Your task to perform on an android device: Go to eBay Image 0: 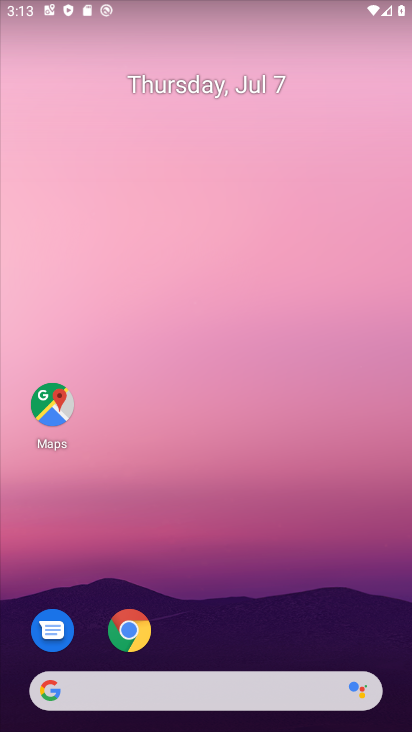
Step 0: click (142, 629)
Your task to perform on an android device: Go to eBay Image 1: 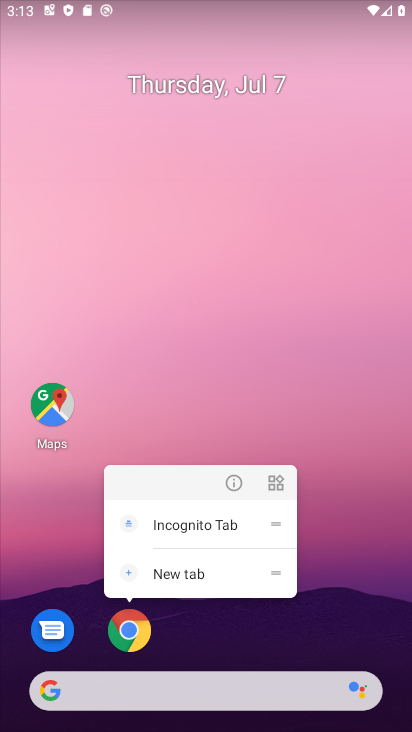
Step 1: click (142, 629)
Your task to perform on an android device: Go to eBay Image 2: 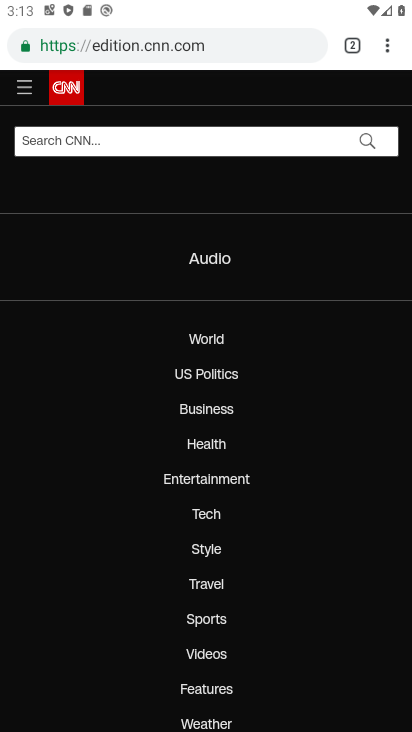
Step 2: click (274, 48)
Your task to perform on an android device: Go to eBay Image 3: 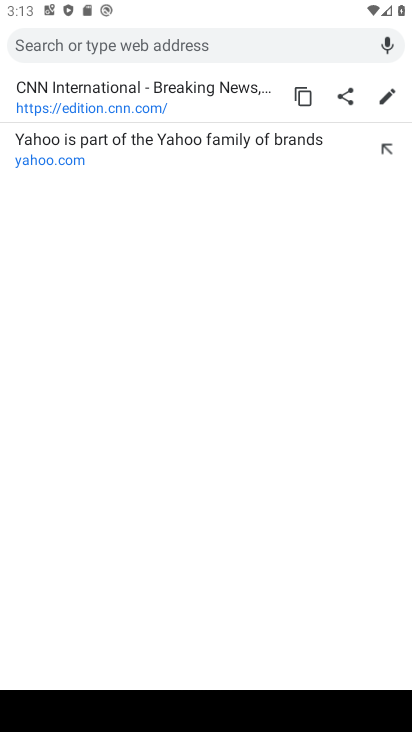
Step 3: type "eBay"
Your task to perform on an android device: Go to eBay Image 4: 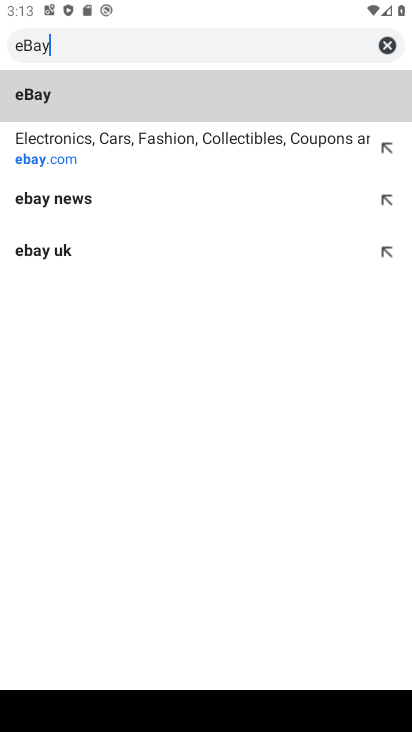
Step 4: click (132, 155)
Your task to perform on an android device: Go to eBay Image 5: 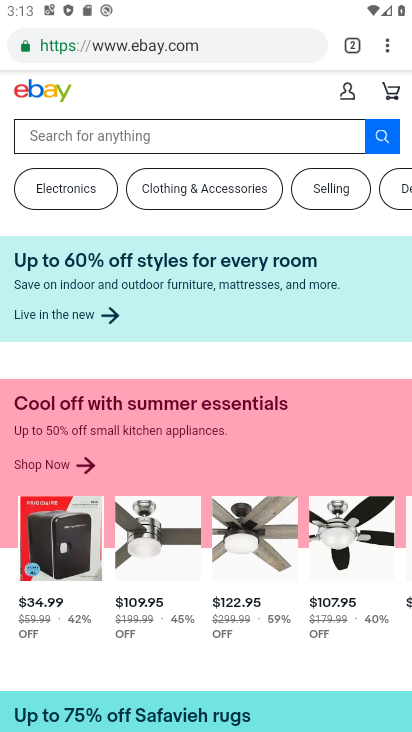
Step 5: task complete